Your task to perform on an android device: open app "Adobe Acrobat Reader: Edit PDF" (install if not already installed) and go to login screen Image 0: 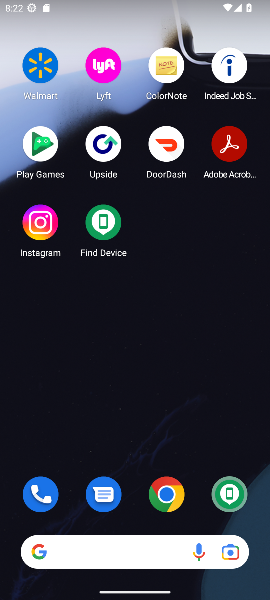
Step 0: drag from (196, 515) to (180, 109)
Your task to perform on an android device: open app "Adobe Acrobat Reader: Edit PDF" (install if not already installed) and go to login screen Image 1: 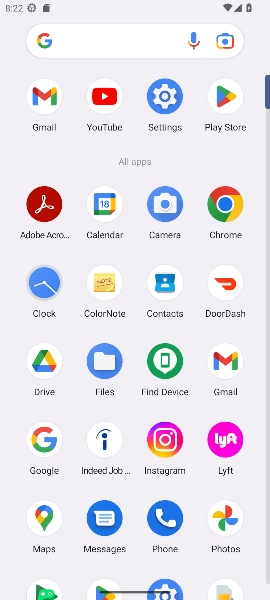
Step 1: drag from (193, 539) to (199, 286)
Your task to perform on an android device: open app "Adobe Acrobat Reader: Edit PDF" (install if not already installed) and go to login screen Image 2: 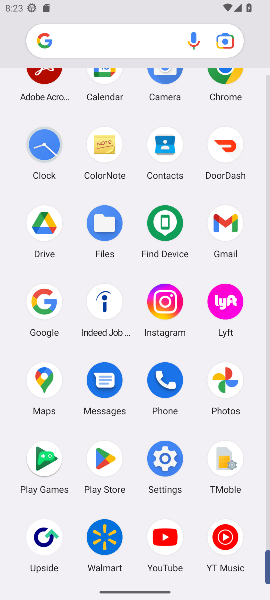
Step 2: click (103, 460)
Your task to perform on an android device: open app "Adobe Acrobat Reader: Edit PDF" (install if not already installed) and go to login screen Image 3: 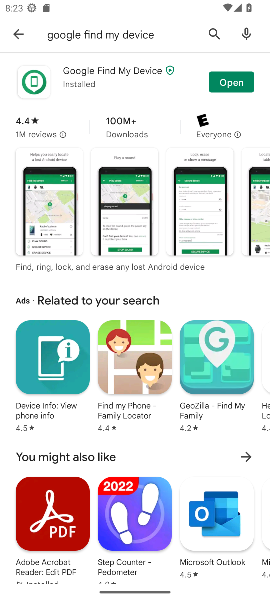
Step 3: click (213, 32)
Your task to perform on an android device: open app "Adobe Acrobat Reader: Edit PDF" (install if not already installed) and go to login screen Image 4: 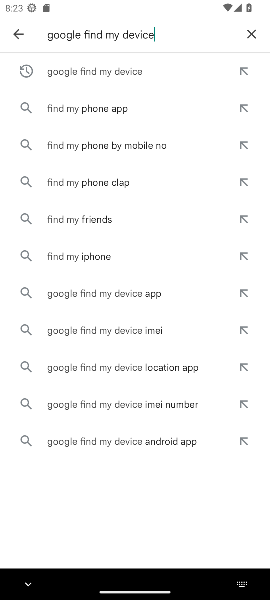
Step 4: click (248, 32)
Your task to perform on an android device: open app "Adobe Acrobat Reader: Edit PDF" (install if not already installed) and go to login screen Image 5: 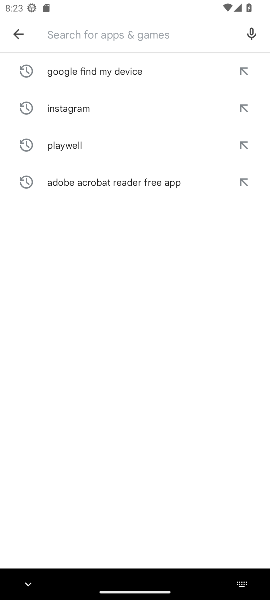
Step 5: type "Adobe Acrobat Reader: Edit PDF"
Your task to perform on an android device: open app "Adobe Acrobat Reader: Edit PDF" (install if not already installed) and go to login screen Image 6: 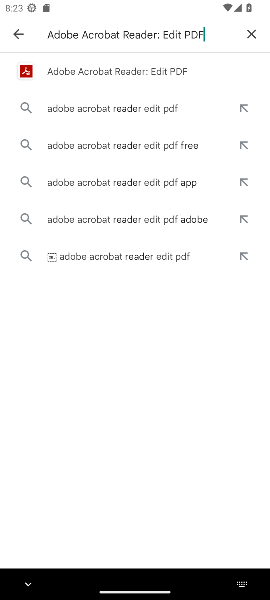
Step 6: click (96, 74)
Your task to perform on an android device: open app "Adobe Acrobat Reader: Edit PDF" (install if not already installed) and go to login screen Image 7: 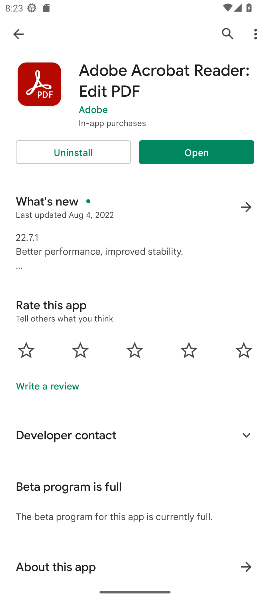
Step 7: click (195, 151)
Your task to perform on an android device: open app "Adobe Acrobat Reader: Edit PDF" (install if not already installed) and go to login screen Image 8: 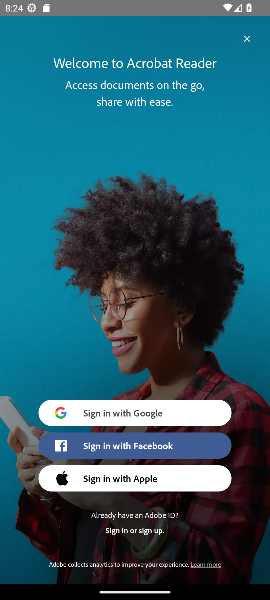
Step 8: task complete